Your task to perform on an android device: delete a single message in the gmail app Image 0: 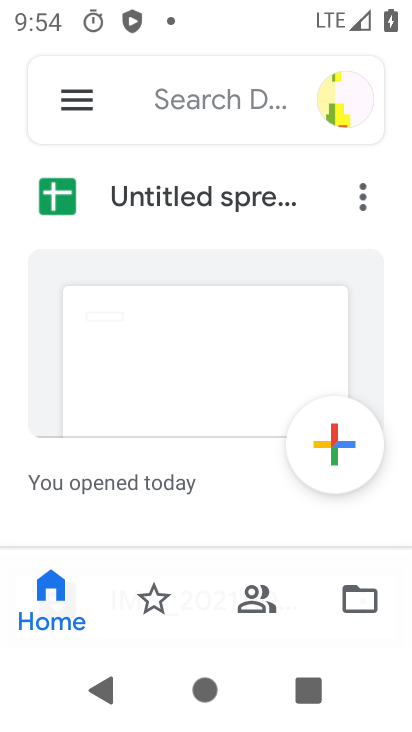
Step 0: press home button
Your task to perform on an android device: delete a single message in the gmail app Image 1: 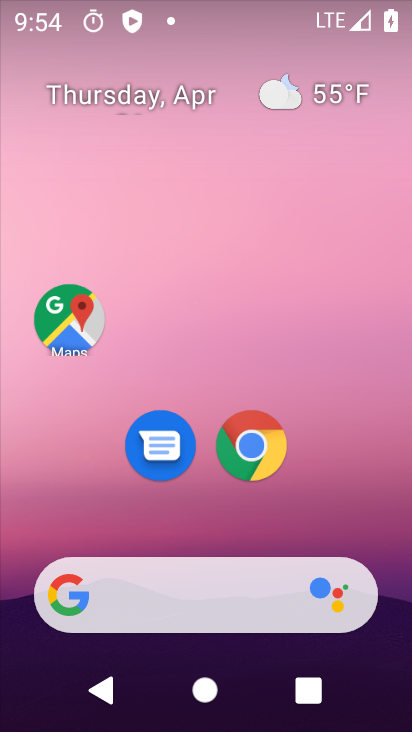
Step 1: drag from (376, 513) to (354, 6)
Your task to perform on an android device: delete a single message in the gmail app Image 2: 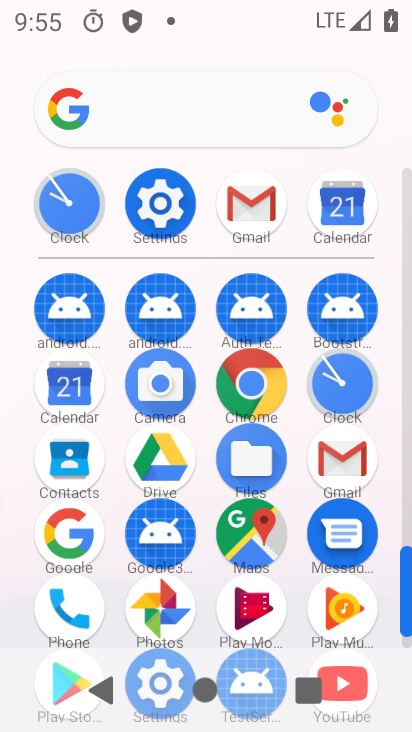
Step 2: click (245, 216)
Your task to perform on an android device: delete a single message in the gmail app Image 3: 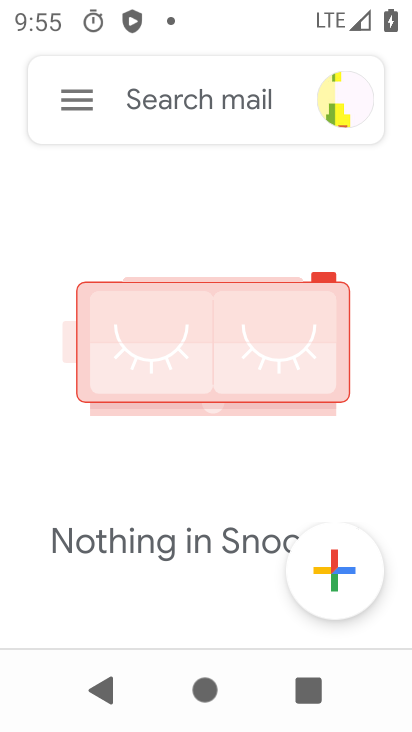
Step 3: click (76, 102)
Your task to perform on an android device: delete a single message in the gmail app Image 4: 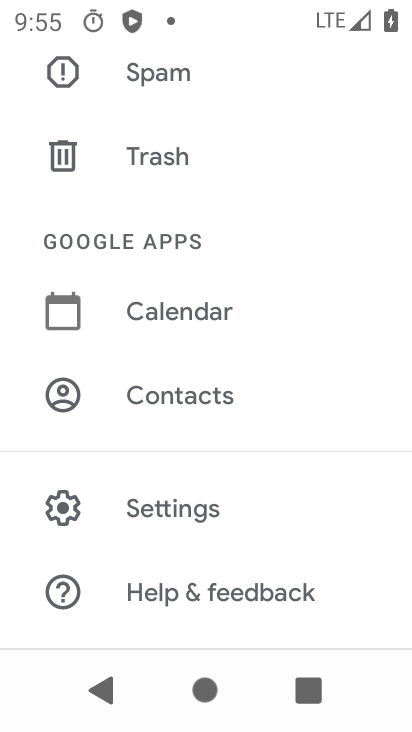
Step 4: drag from (271, 295) to (282, 614)
Your task to perform on an android device: delete a single message in the gmail app Image 5: 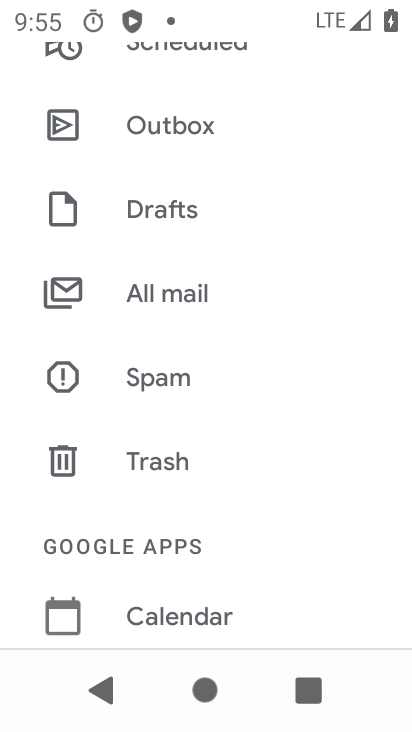
Step 5: click (149, 301)
Your task to perform on an android device: delete a single message in the gmail app Image 6: 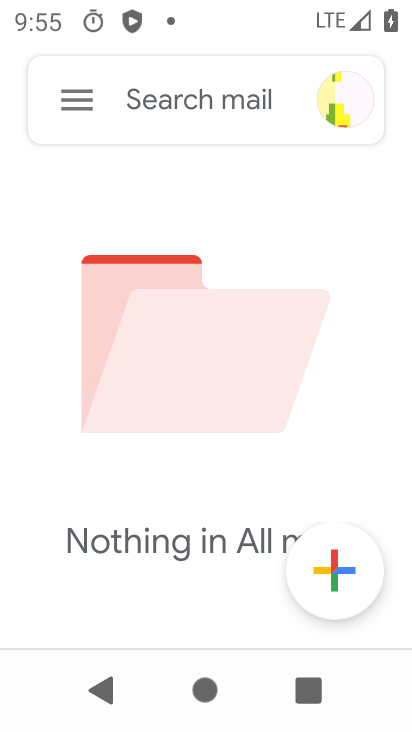
Step 6: task complete